Your task to perform on an android device: Open location settings Image 0: 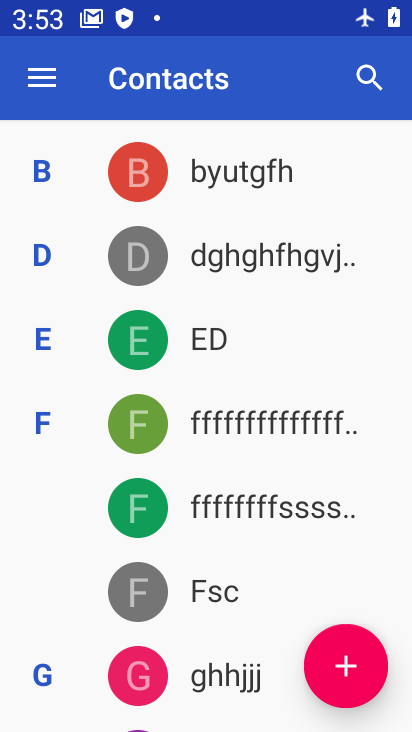
Step 0: press back button
Your task to perform on an android device: Open location settings Image 1: 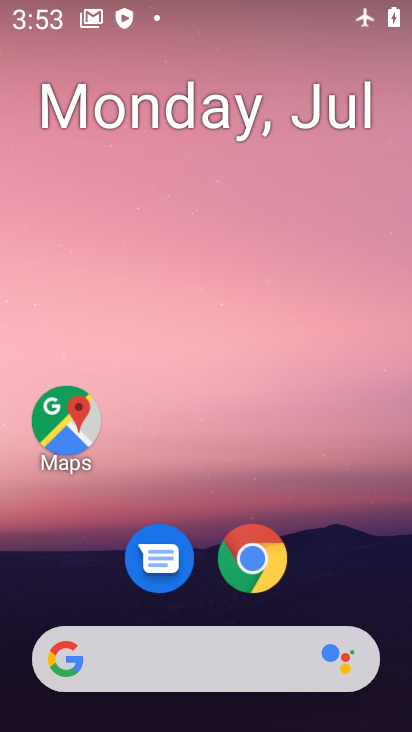
Step 1: drag from (78, 553) to (131, 11)
Your task to perform on an android device: Open location settings Image 2: 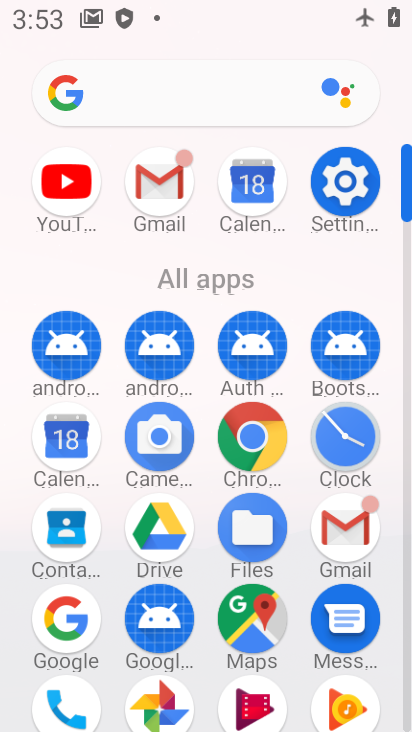
Step 2: click (358, 182)
Your task to perform on an android device: Open location settings Image 3: 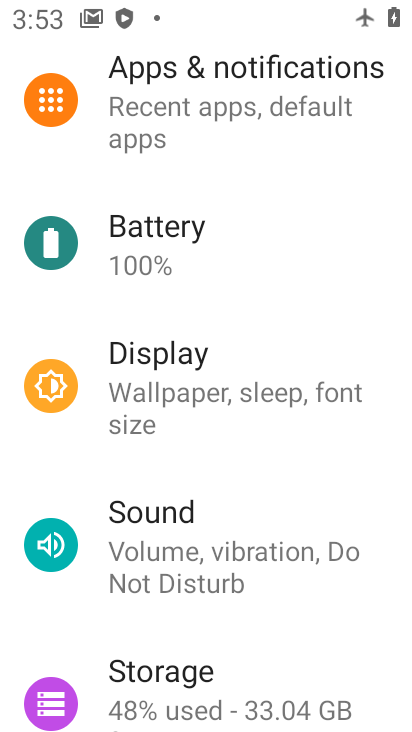
Step 3: drag from (217, 119) to (157, 731)
Your task to perform on an android device: Open location settings Image 4: 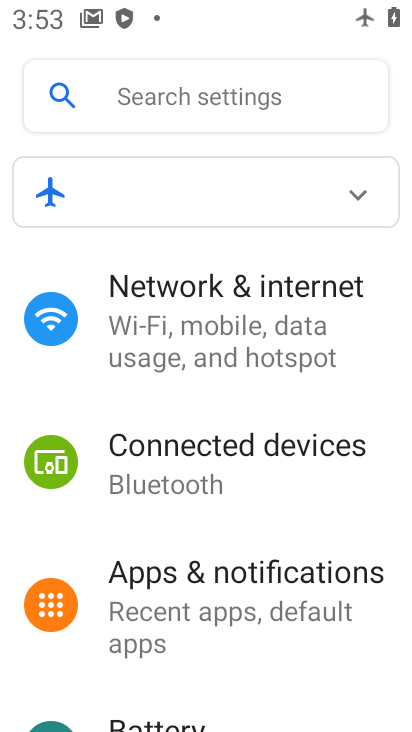
Step 4: drag from (156, 638) to (220, 32)
Your task to perform on an android device: Open location settings Image 5: 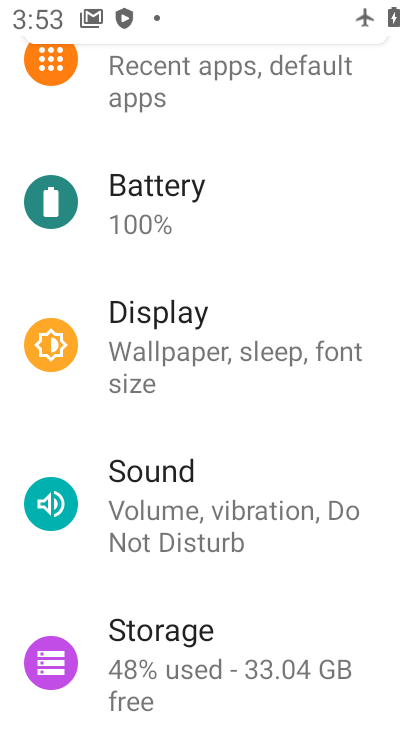
Step 5: drag from (183, 663) to (284, 19)
Your task to perform on an android device: Open location settings Image 6: 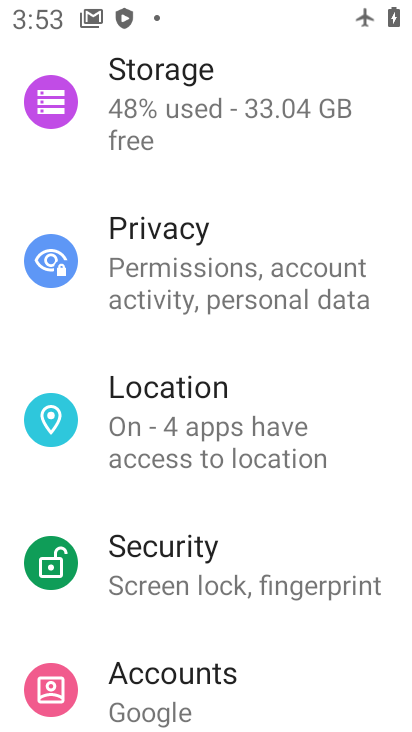
Step 6: click (161, 404)
Your task to perform on an android device: Open location settings Image 7: 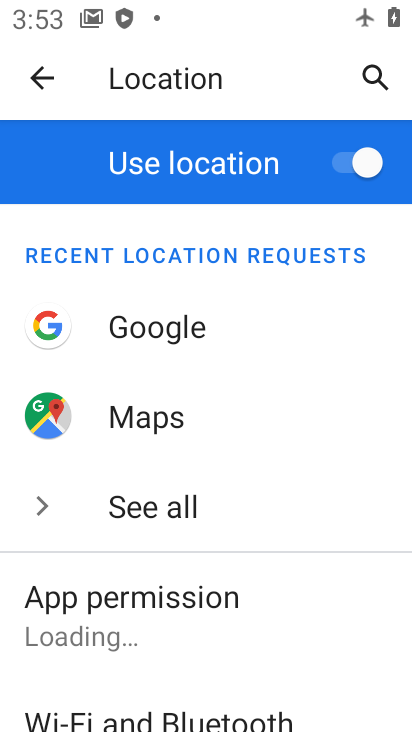
Step 7: task complete